Your task to perform on an android device: Search for Mexican restaurants on Maps Image 0: 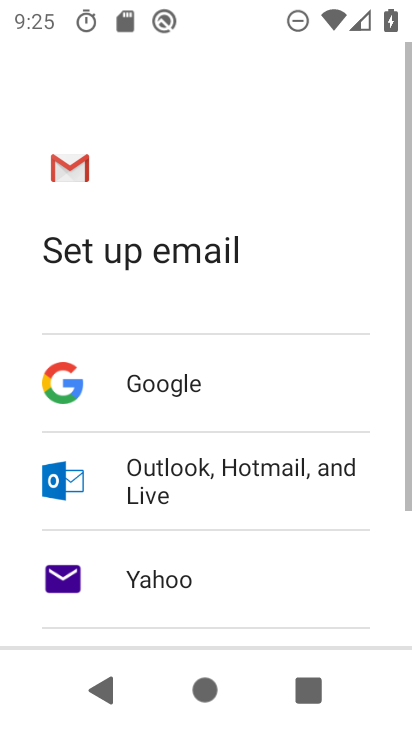
Step 0: press home button
Your task to perform on an android device: Search for Mexican restaurants on Maps Image 1: 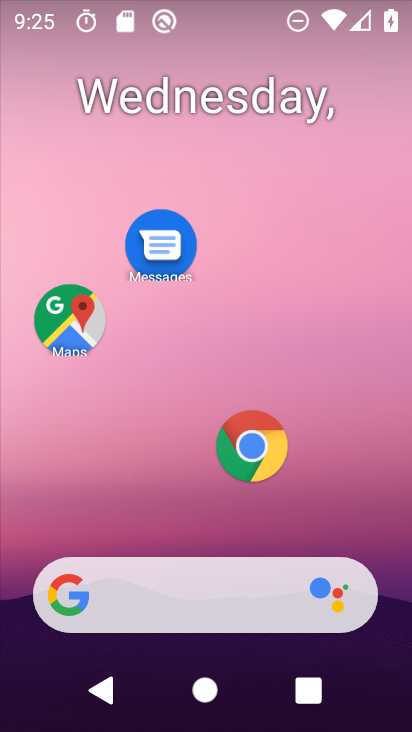
Step 1: click (68, 321)
Your task to perform on an android device: Search for Mexican restaurants on Maps Image 2: 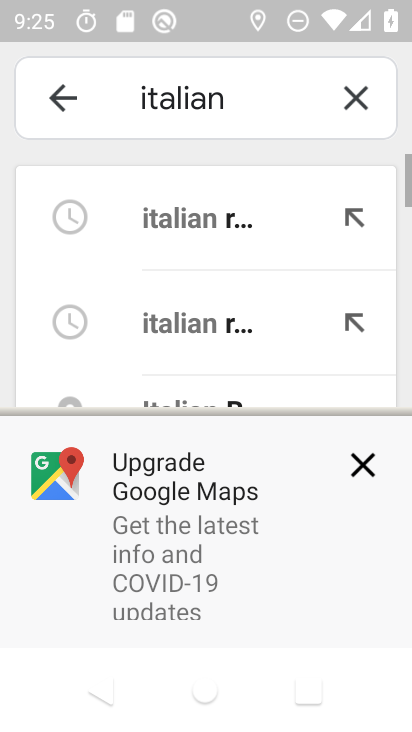
Step 2: click (343, 101)
Your task to perform on an android device: Search for Mexican restaurants on Maps Image 3: 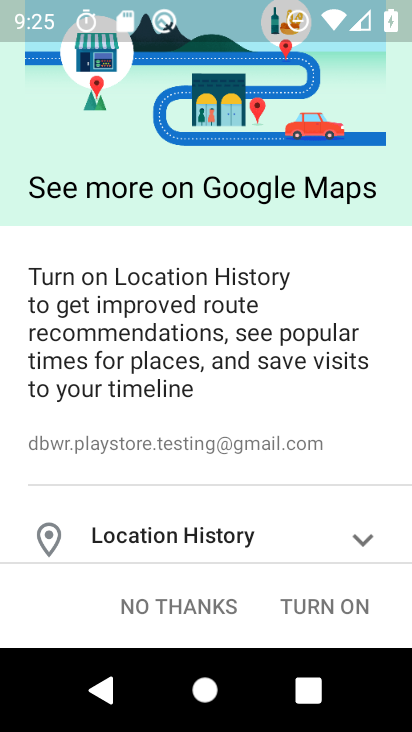
Step 3: click (324, 602)
Your task to perform on an android device: Search for Mexican restaurants on Maps Image 4: 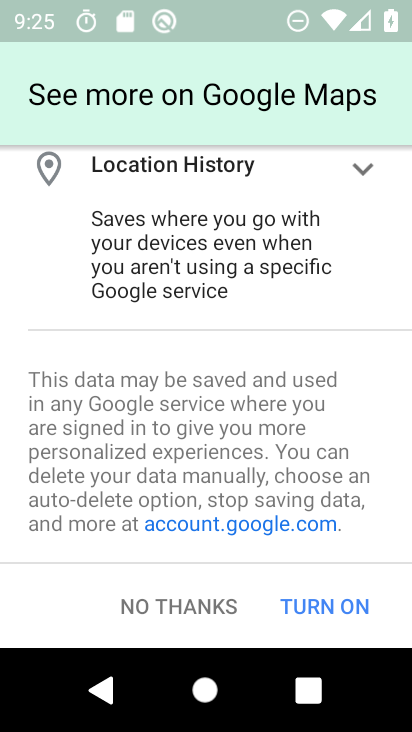
Step 4: click (331, 605)
Your task to perform on an android device: Search for Mexican restaurants on Maps Image 5: 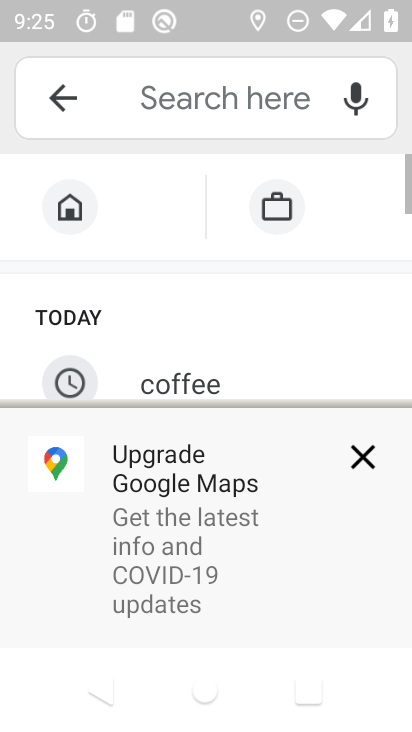
Step 5: click (360, 448)
Your task to perform on an android device: Search for Mexican restaurants on Maps Image 6: 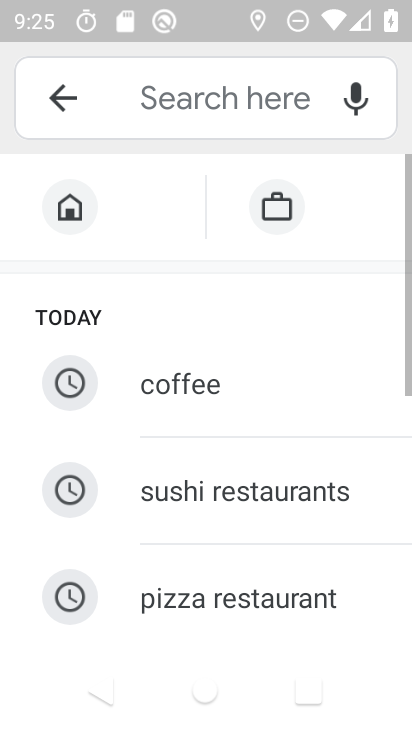
Step 6: drag from (220, 546) to (210, 214)
Your task to perform on an android device: Search for Mexican restaurants on Maps Image 7: 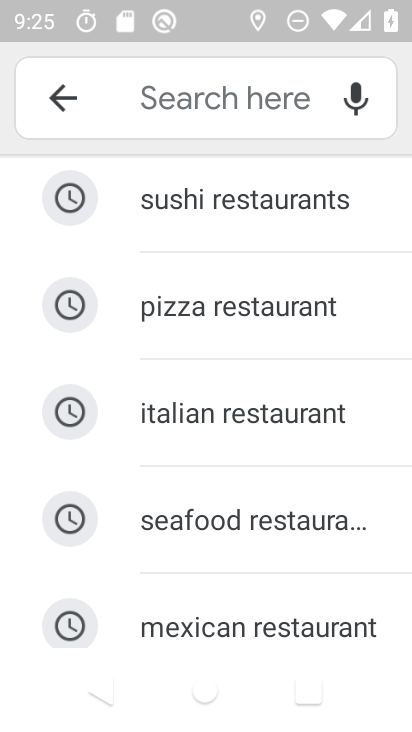
Step 7: click (210, 608)
Your task to perform on an android device: Search for Mexican restaurants on Maps Image 8: 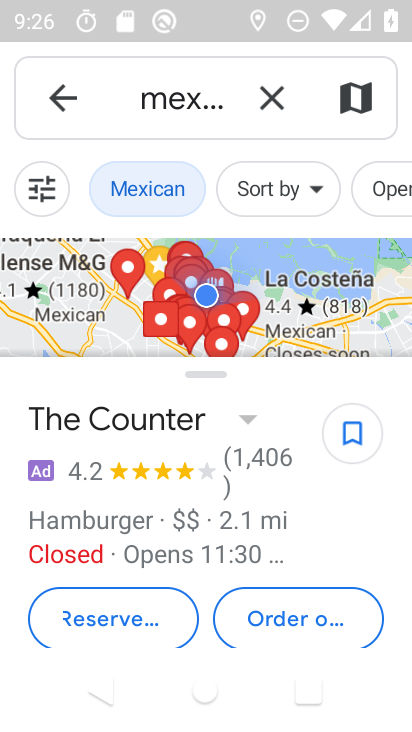
Step 8: task complete